Your task to perform on an android device: When is my next meeting? Image 0: 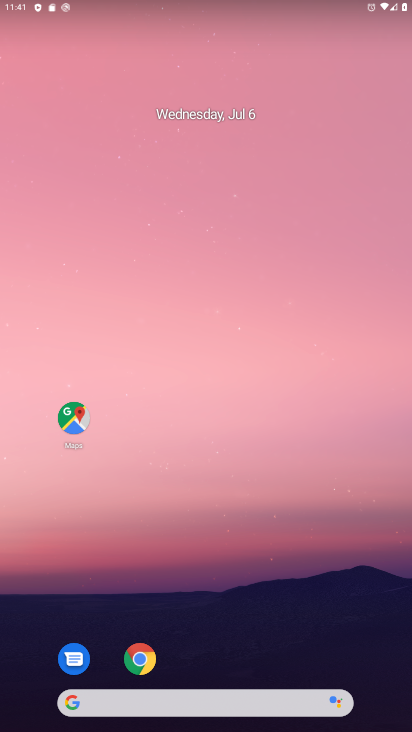
Step 0: click (194, 124)
Your task to perform on an android device: When is my next meeting? Image 1: 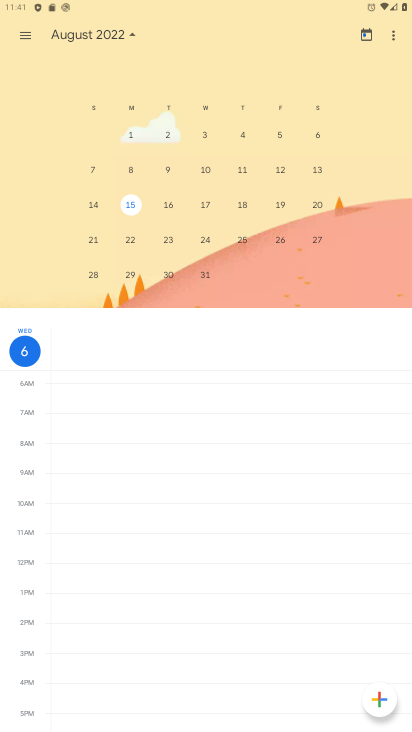
Step 1: click (18, 32)
Your task to perform on an android device: When is my next meeting? Image 2: 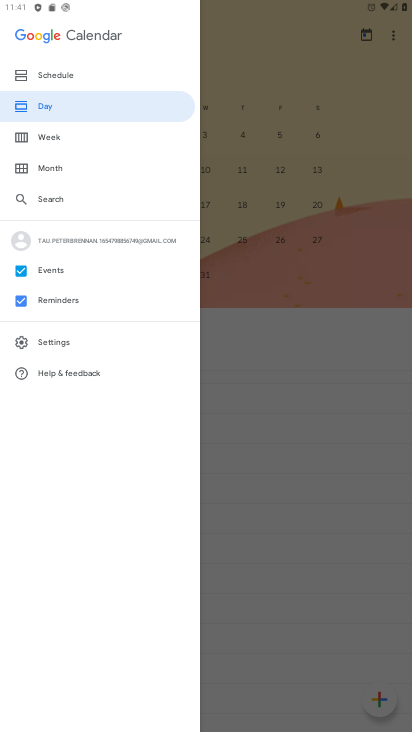
Step 2: click (20, 274)
Your task to perform on an android device: When is my next meeting? Image 3: 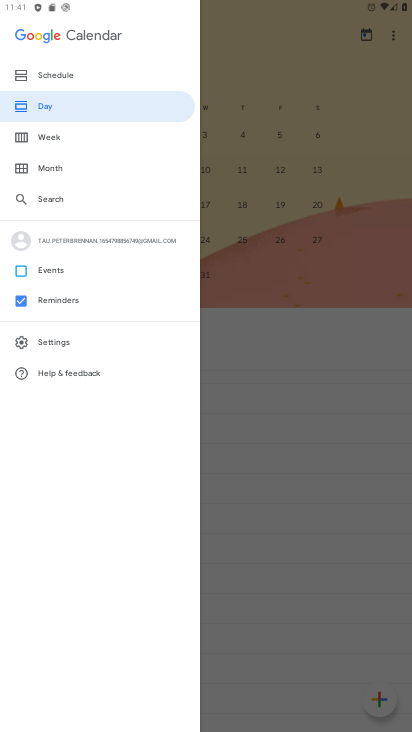
Step 3: click (281, 340)
Your task to perform on an android device: When is my next meeting? Image 4: 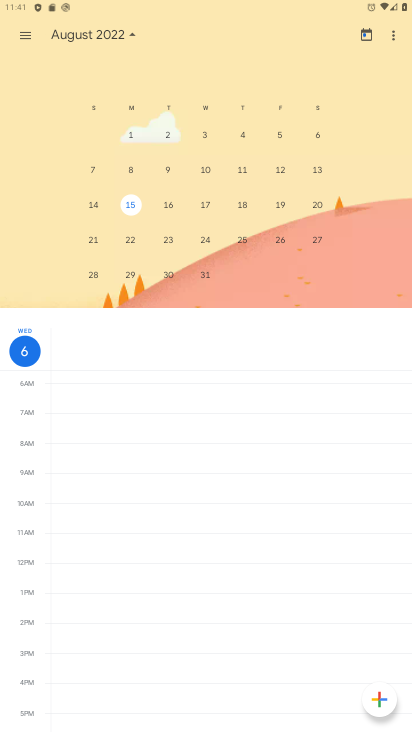
Step 4: click (126, 39)
Your task to perform on an android device: When is my next meeting? Image 5: 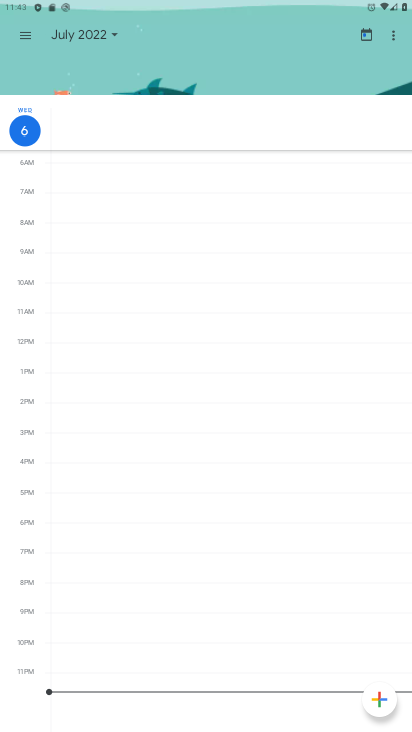
Step 5: task complete